Your task to perform on an android device: turn on showing notifications on the lock screen Image 0: 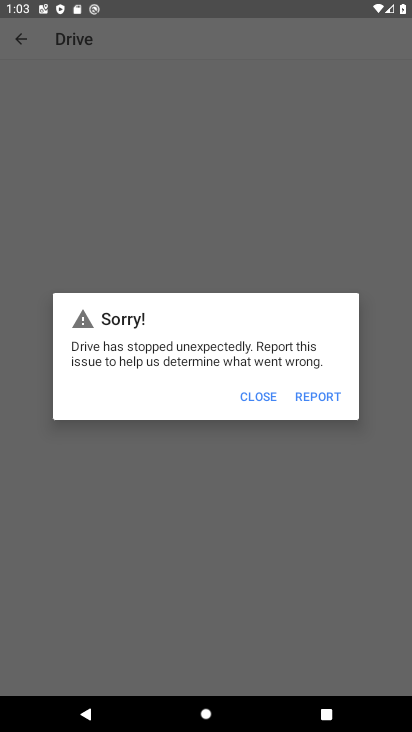
Step 0: press home button
Your task to perform on an android device: turn on showing notifications on the lock screen Image 1: 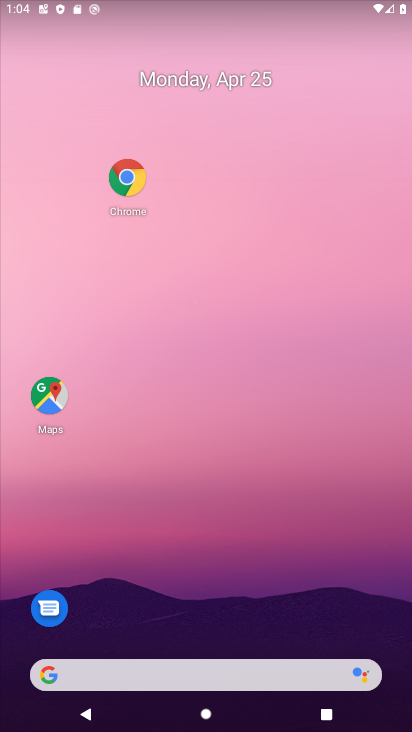
Step 1: drag from (298, 574) to (289, 123)
Your task to perform on an android device: turn on showing notifications on the lock screen Image 2: 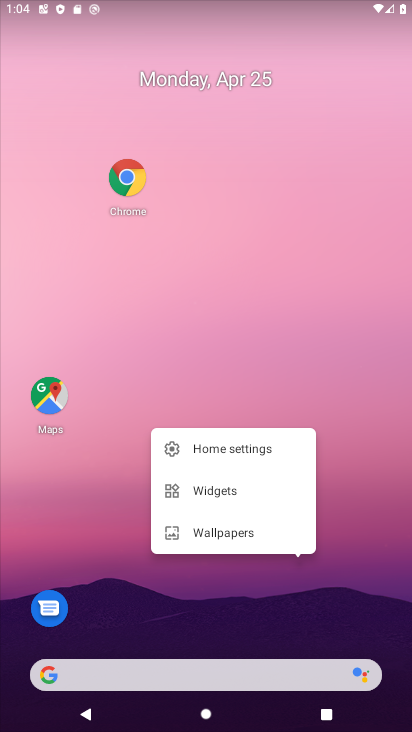
Step 2: drag from (338, 514) to (301, 124)
Your task to perform on an android device: turn on showing notifications on the lock screen Image 3: 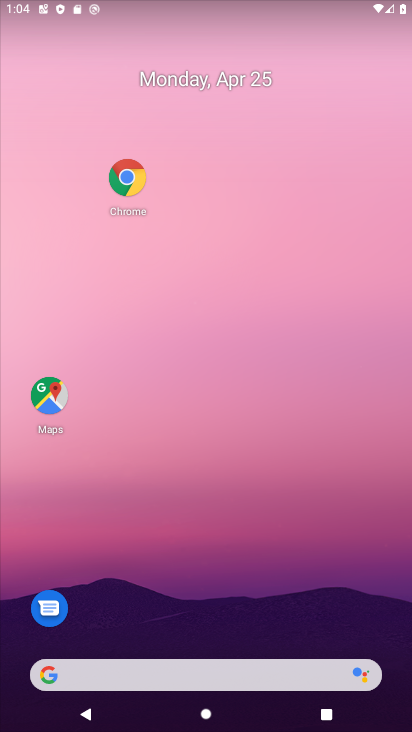
Step 3: drag from (236, 606) to (297, 150)
Your task to perform on an android device: turn on showing notifications on the lock screen Image 4: 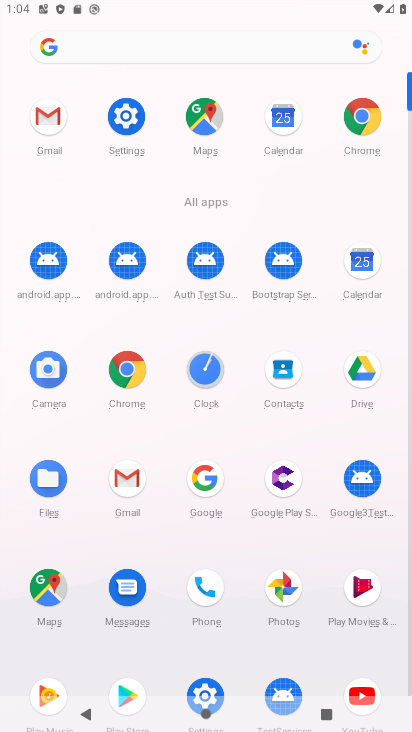
Step 4: click (125, 107)
Your task to perform on an android device: turn on showing notifications on the lock screen Image 5: 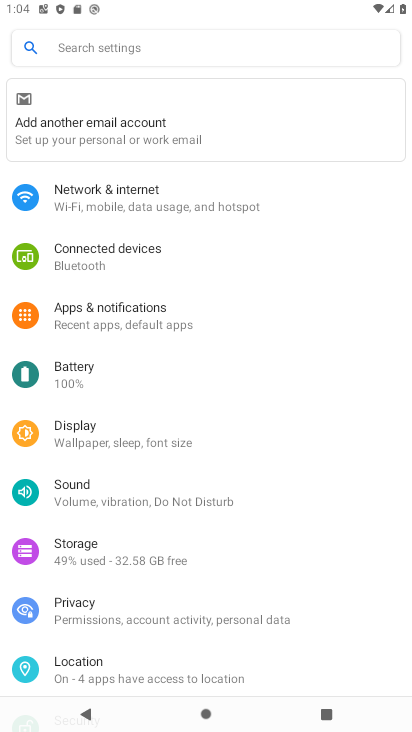
Step 5: click (121, 317)
Your task to perform on an android device: turn on showing notifications on the lock screen Image 6: 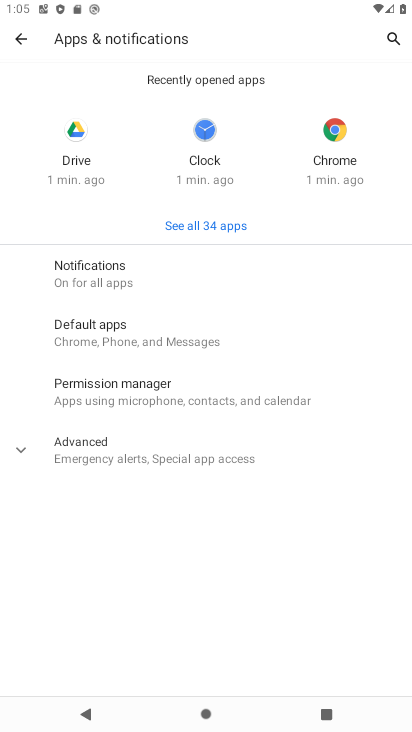
Step 6: click (92, 284)
Your task to perform on an android device: turn on showing notifications on the lock screen Image 7: 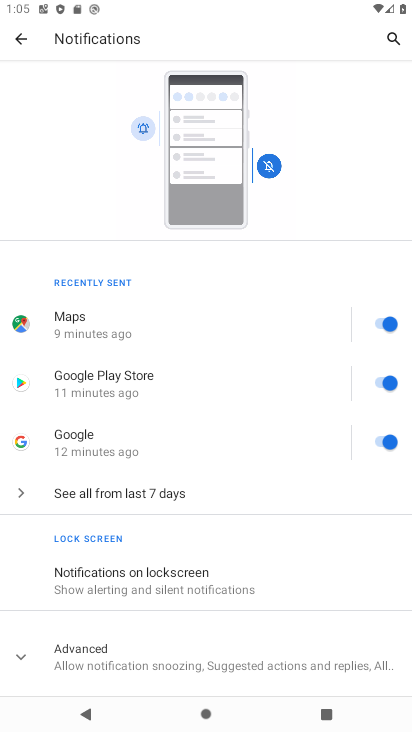
Step 7: click (145, 572)
Your task to perform on an android device: turn on showing notifications on the lock screen Image 8: 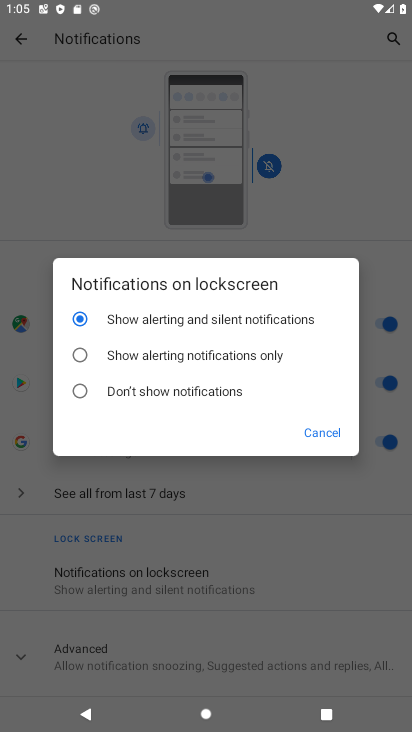
Step 8: click (254, 363)
Your task to perform on an android device: turn on showing notifications on the lock screen Image 9: 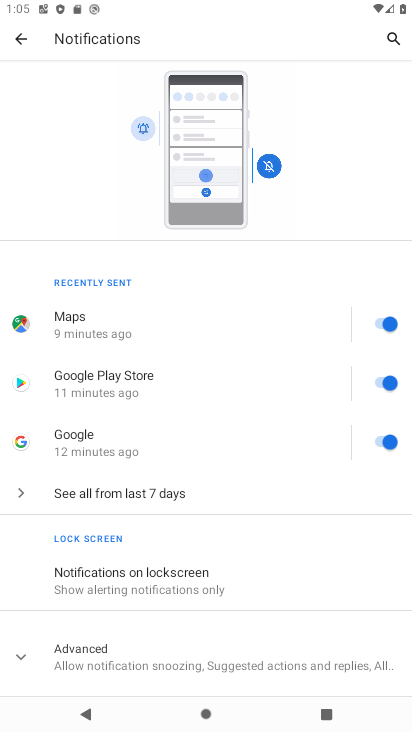
Step 9: task complete